Your task to perform on an android device: turn notification dots on Image 0: 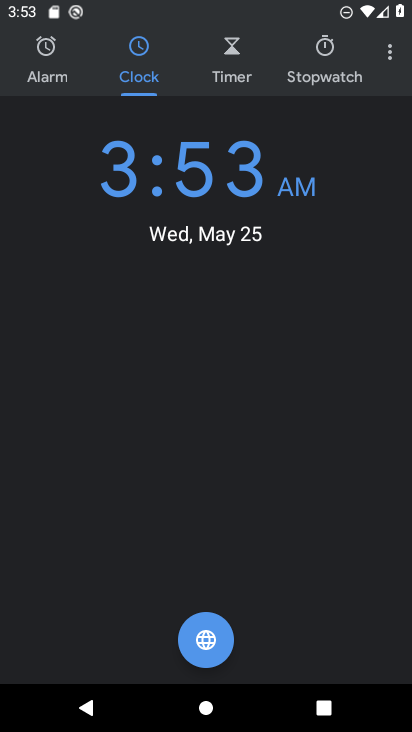
Step 0: press home button
Your task to perform on an android device: turn notification dots on Image 1: 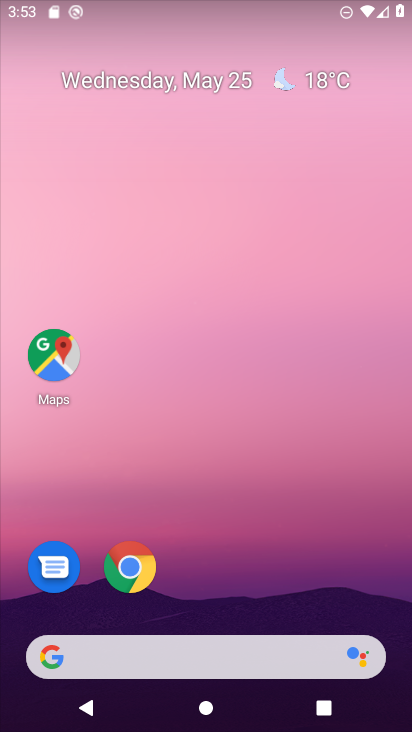
Step 1: drag from (364, 601) to (373, 219)
Your task to perform on an android device: turn notification dots on Image 2: 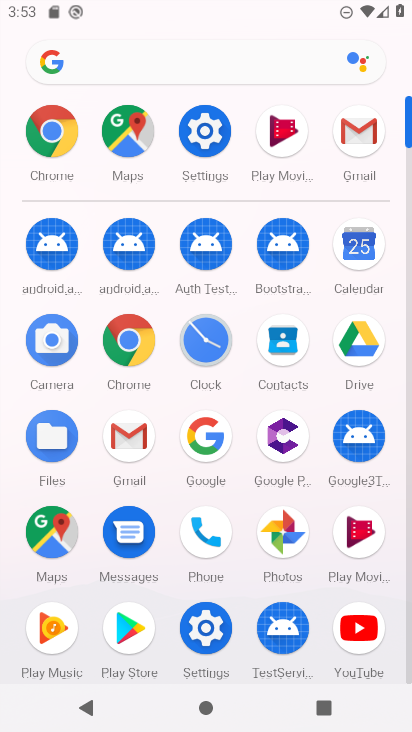
Step 2: click (217, 634)
Your task to perform on an android device: turn notification dots on Image 3: 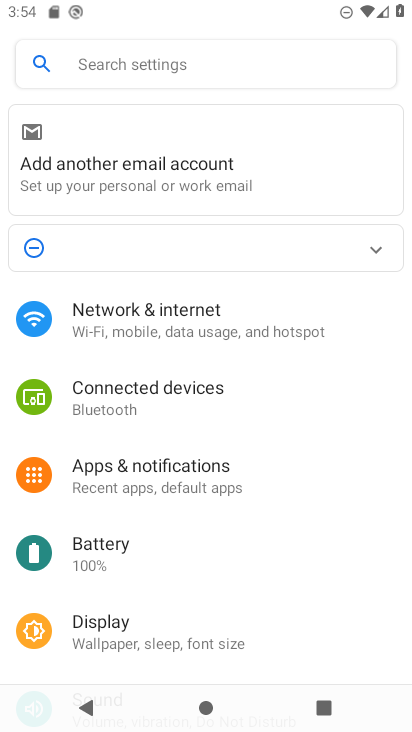
Step 3: drag from (340, 593) to (332, 448)
Your task to perform on an android device: turn notification dots on Image 4: 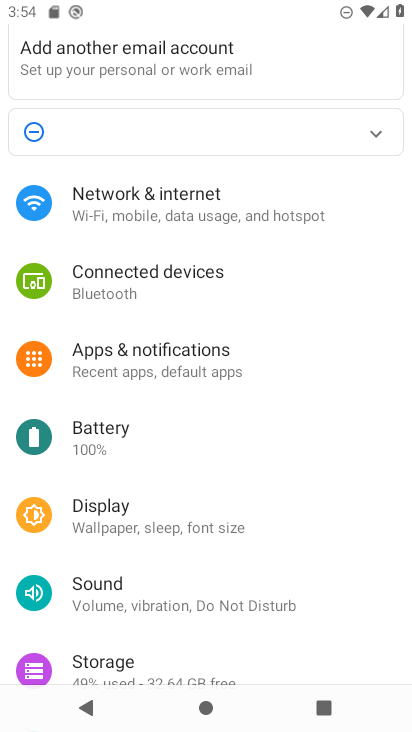
Step 4: drag from (346, 538) to (347, 487)
Your task to perform on an android device: turn notification dots on Image 5: 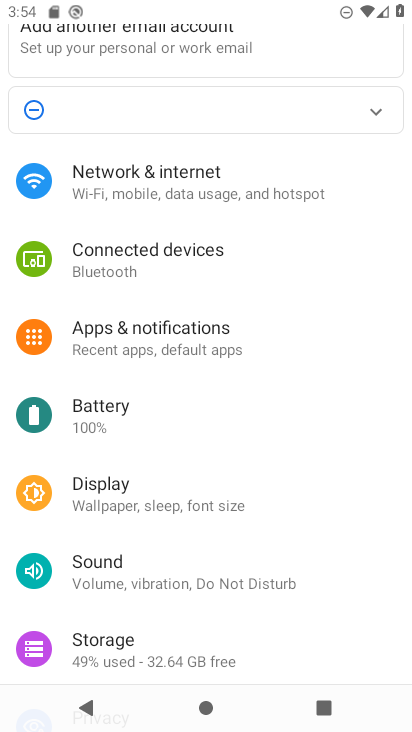
Step 5: drag from (364, 549) to (343, 375)
Your task to perform on an android device: turn notification dots on Image 6: 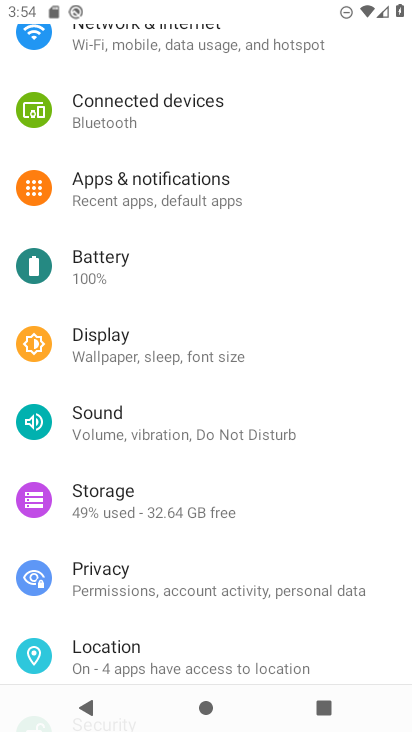
Step 6: drag from (352, 534) to (362, 387)
Your task to perform on an android device: turn notification dots on Image 7: 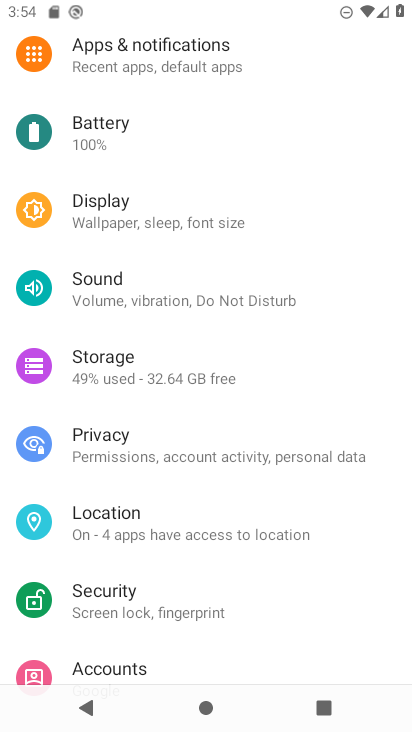
Step 7: drag from (361, 290) to (340, 472)
Your task to perform on an android device: turn notification dots on Image 8: 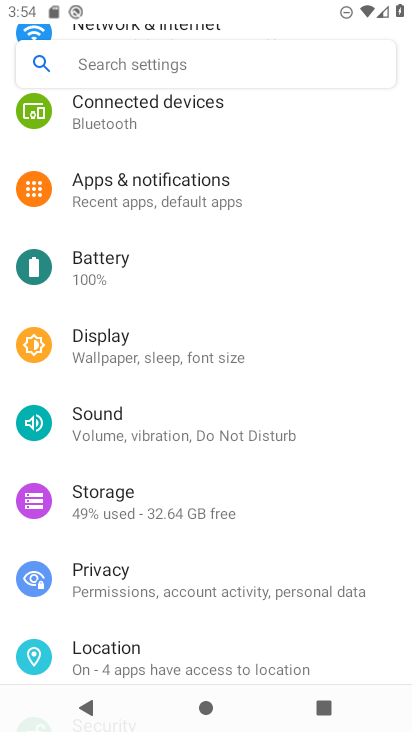
Step 8: drag from (352, 243) to (327, 407)
Your task to perform on an android device: turn notification dots on Image 9: 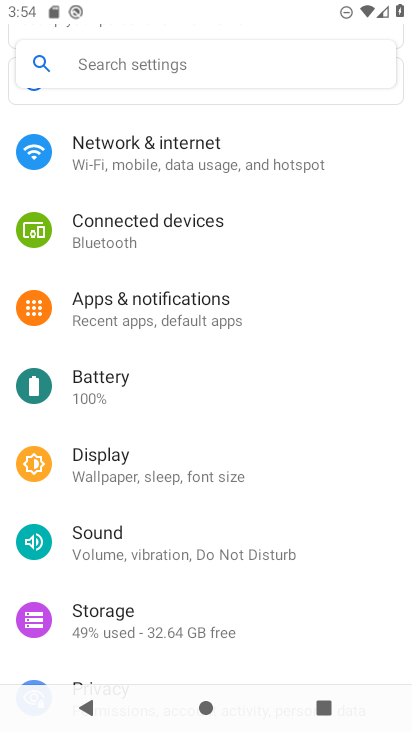
Step 9: drag from (359, 281) to (356, 391)
Your task to perform on an android device: turn notification dots on Image 10: 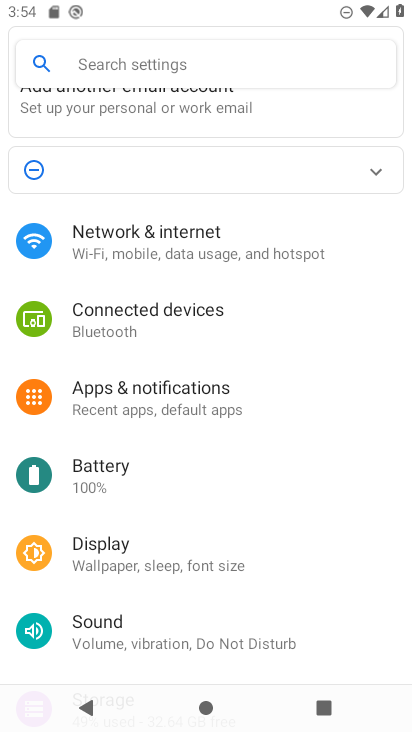
Step 10: drag from (365, 312) to (347, 449)
Your task to perform on an android device: turn notification dots on Image 11: 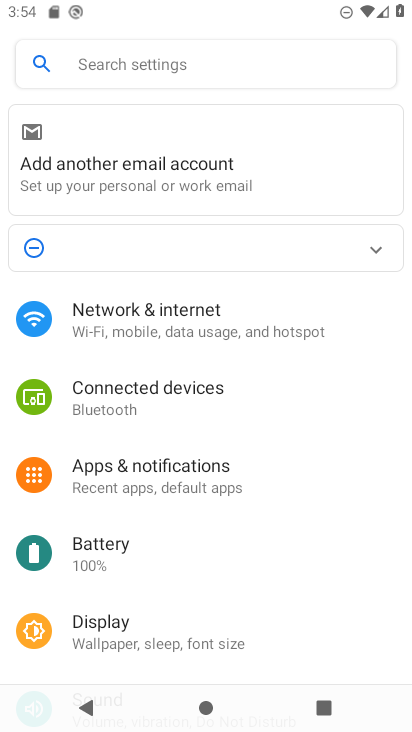
Step 11: drag from (341, 504) to (340, 384)
Your task to perform on an android device: turn notification dots on Image 12: 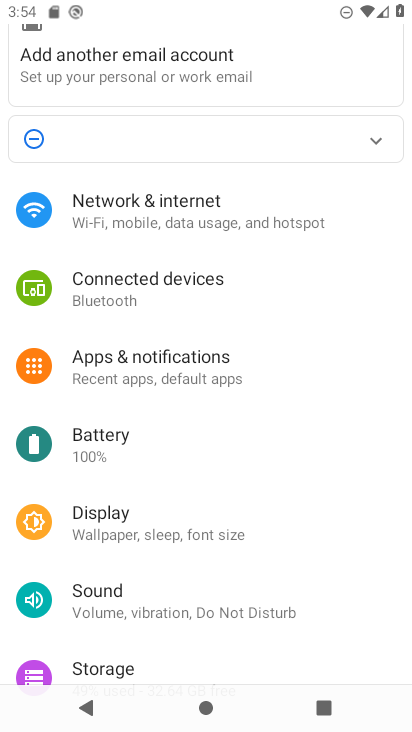
Step 12: click (168, 383)
Your task to perform on an android device: turn notification dots on Image 13: 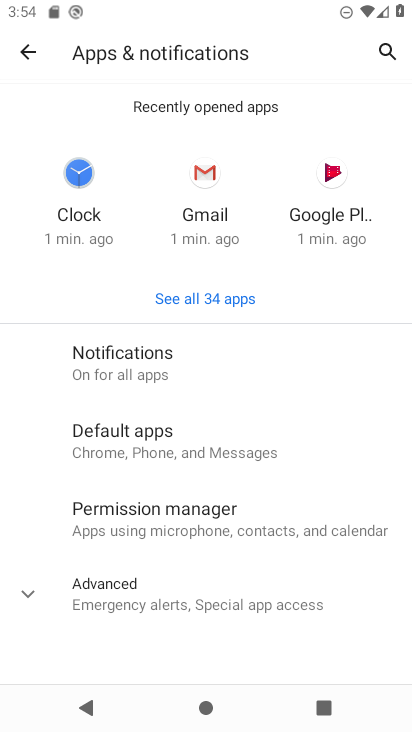
Step 13: drag from (247, 528) to (258, 422)
Your task to perform on an android device: turn notification dots on Image 14: 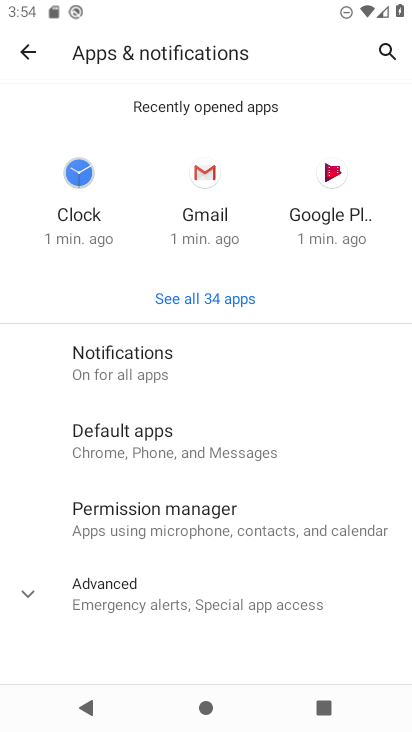
Step 14: click (242, 607)
Your task to perform on an android device: turn notification dots on Image 15: 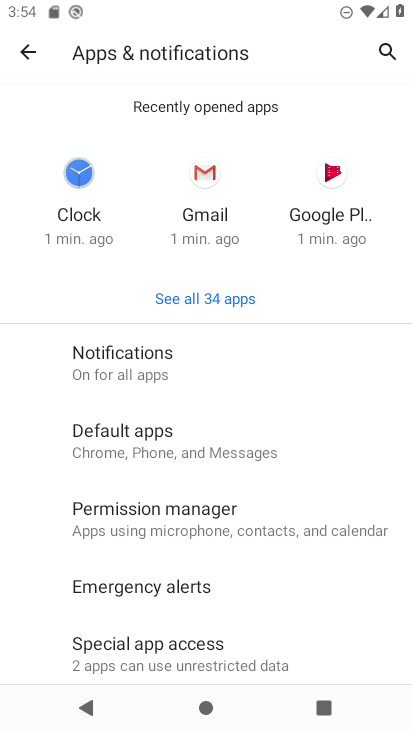
Step 15: drag from (319, 626) to (328, 451)
Your task to perform on an android device: turn notification dots on Image 16: 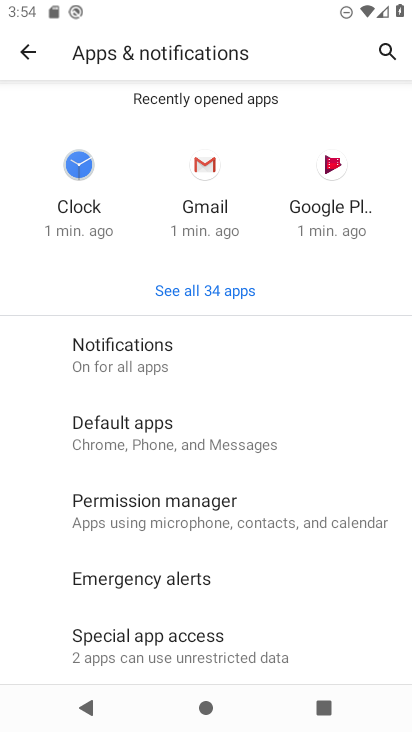
Step 16: drag from (323, 629) to (316, 464)
Your task to perform on an android device: turn notification dots on Image 17: 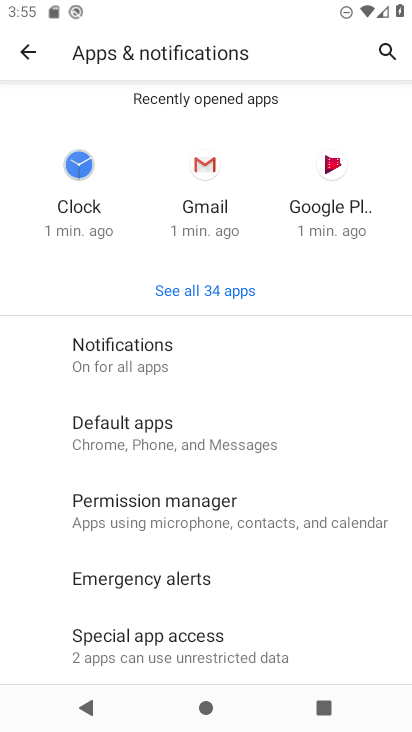
Step 17: click (156, 363)
Your task to perform on an android device: turn notification dots on Image 18: 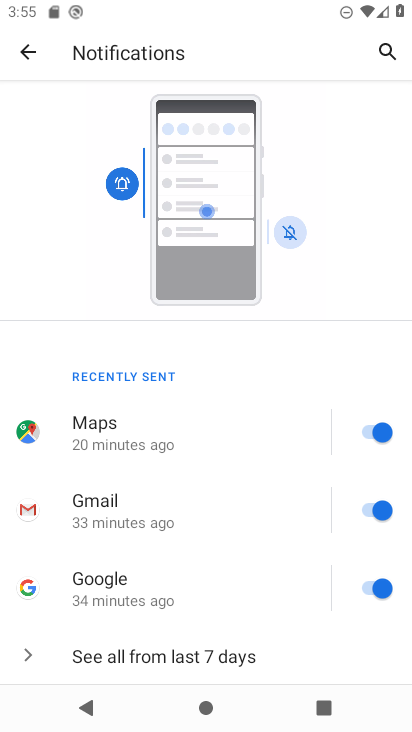
Step 18: drag from (258, 520) to (278, 385)
Your task to perform on an android device: turn notification dots on Image 19: 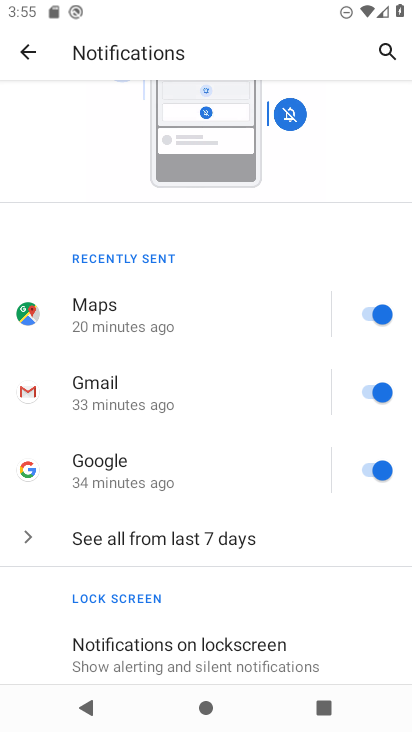
Step 19: drag from (299, 563) to (299, 380)
Your task to perform on an android device: turn notification dots on Image 20: 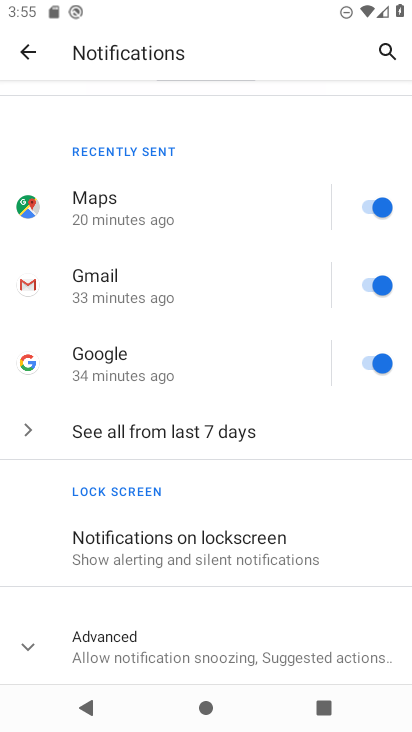
Step 20: drag from (251, 621) to (243, 455)
Your task to perform on an android device: turn notification dots on Image 21: 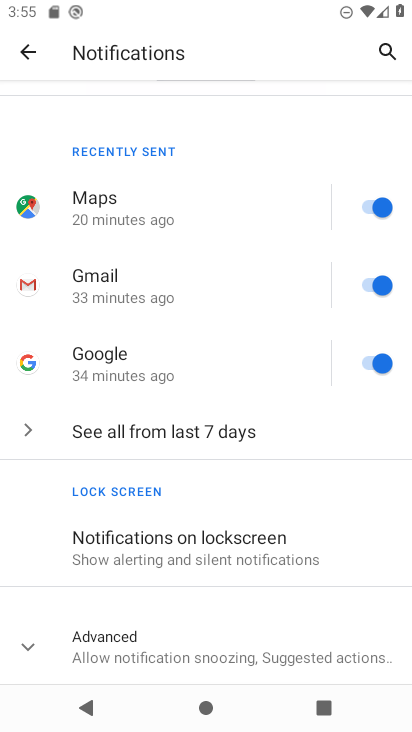
Step 21: click (203, 653)
Your task to perform on an android device: turn notification dots on Image 22: 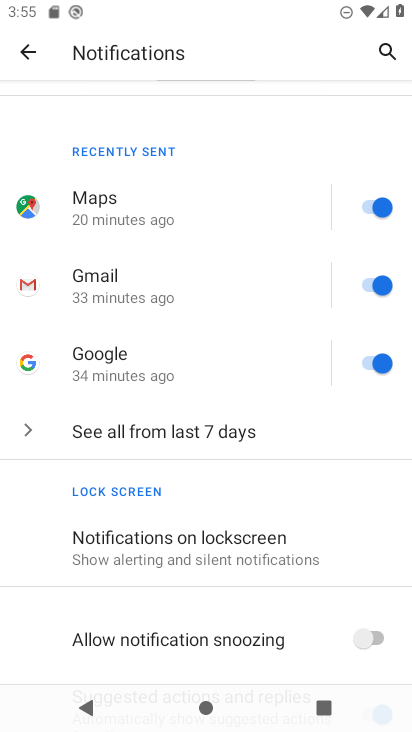
Step 22: task complete